Your task to perform on an android device: toggle notification dots Image 0: 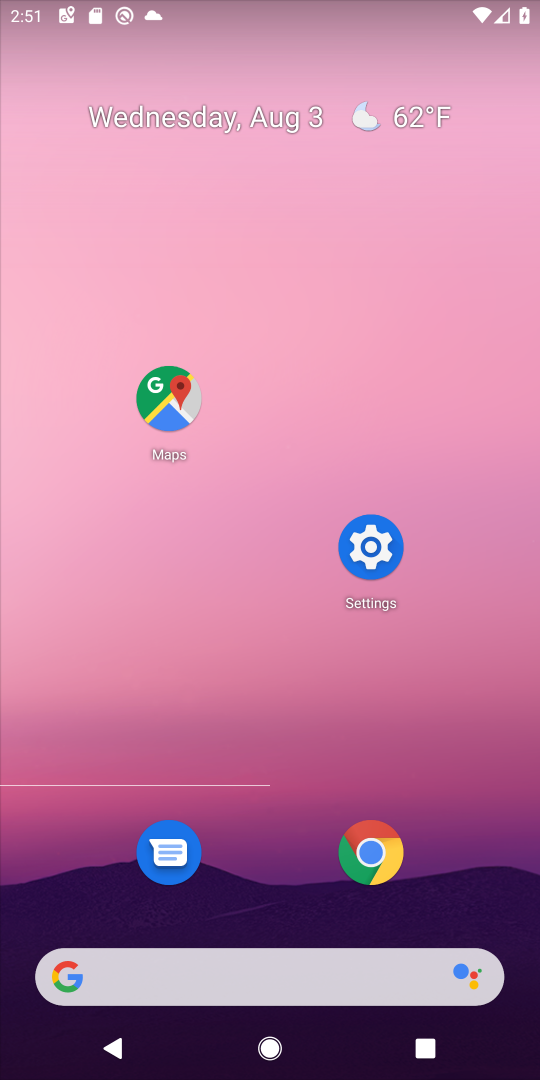
Step 0: press home button
Your task to perform on an android device: toggle notification dots Image 1: 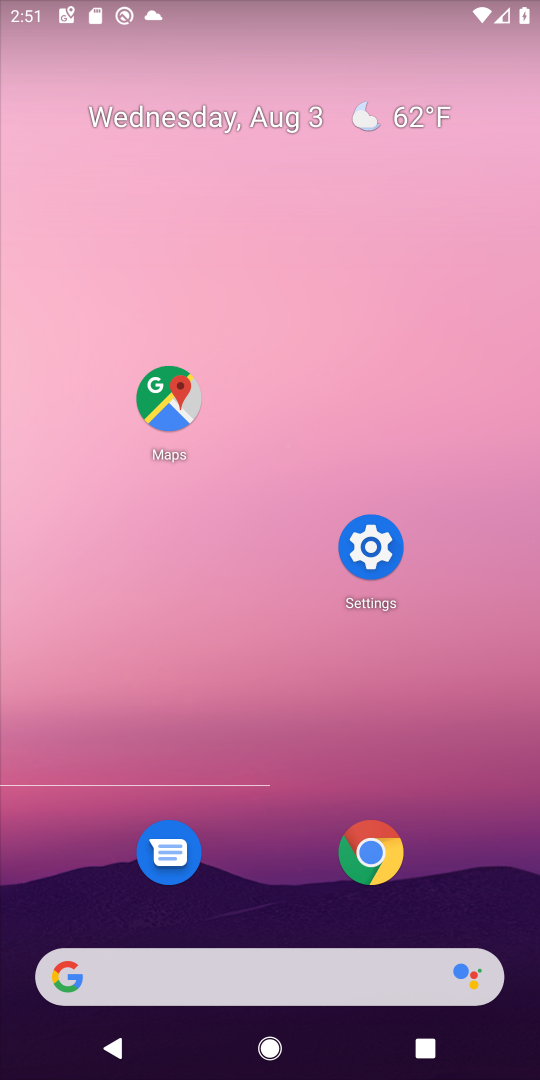
Step 1: click (367, 539)
Your task to perform on an android device: toggle notification dots Image 2: 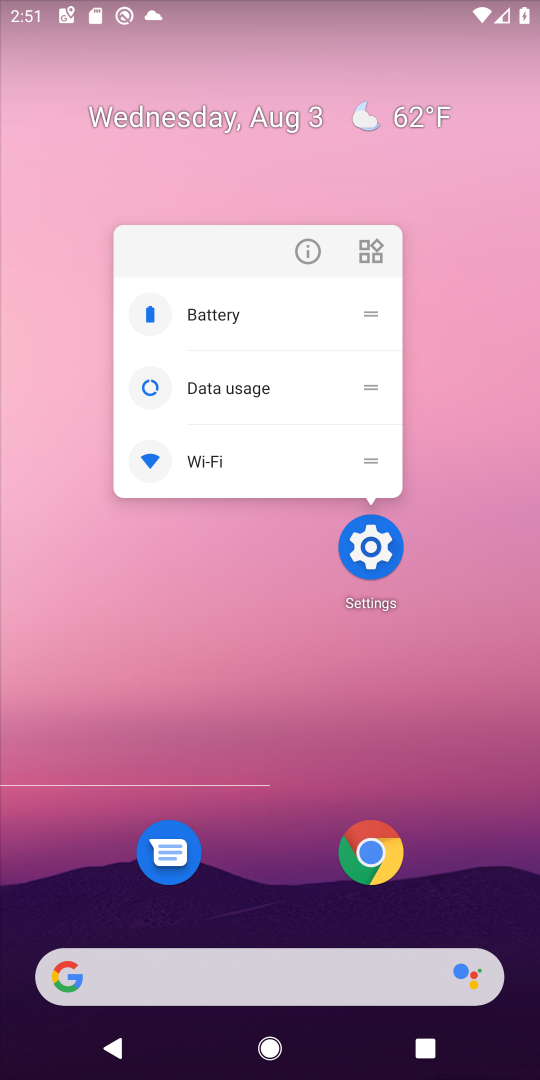
Step 2: click (365, 539)
Your task to perform on an android device: toggle notification dots Image 3: 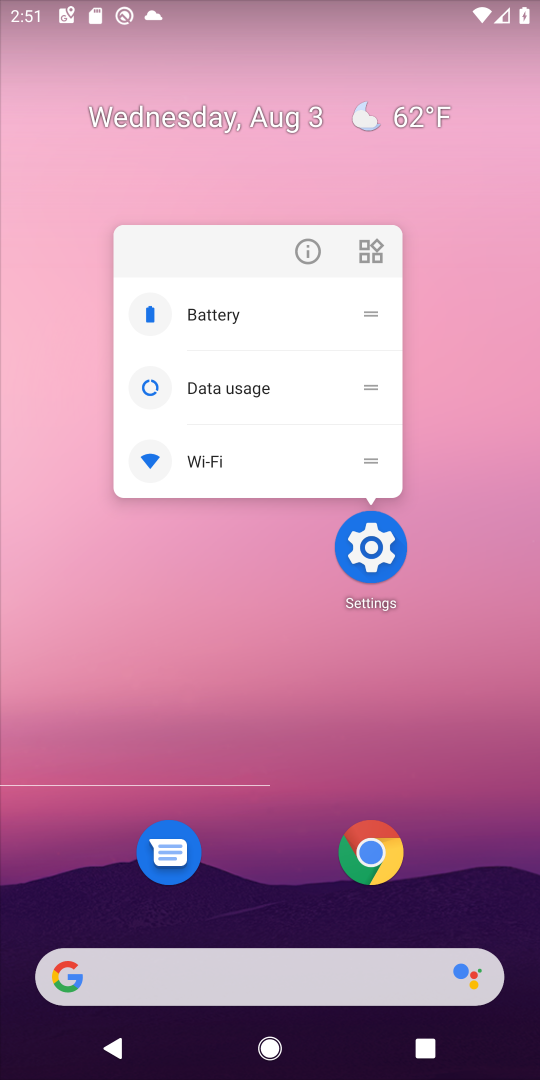
Step 3: click (365, 542)
Your task to perform on an android device: toggle notification dots Image 4: 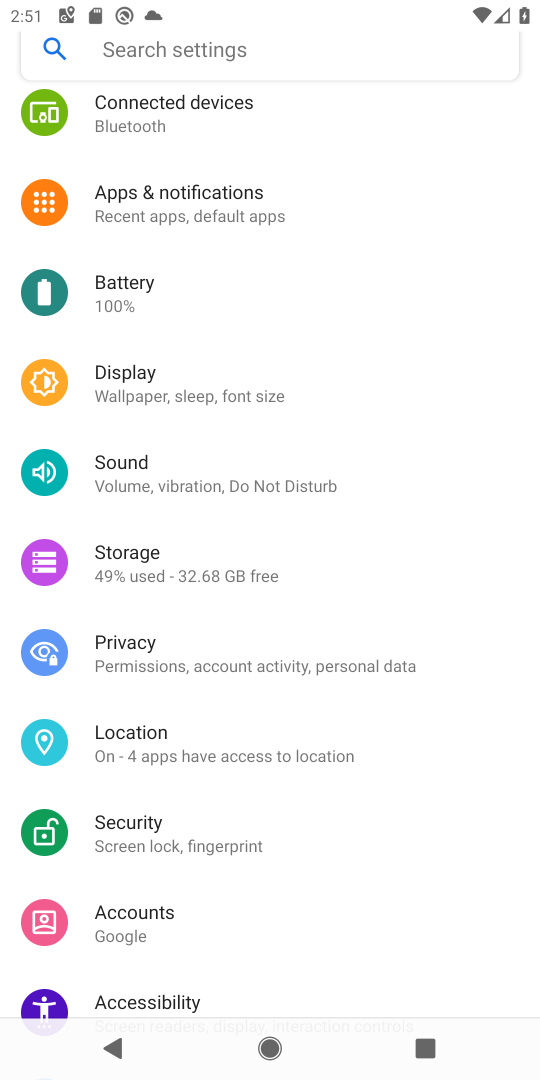
Step 4: click (255, 200)
Your task to perform on an android device: toggle notification dots Image 5: 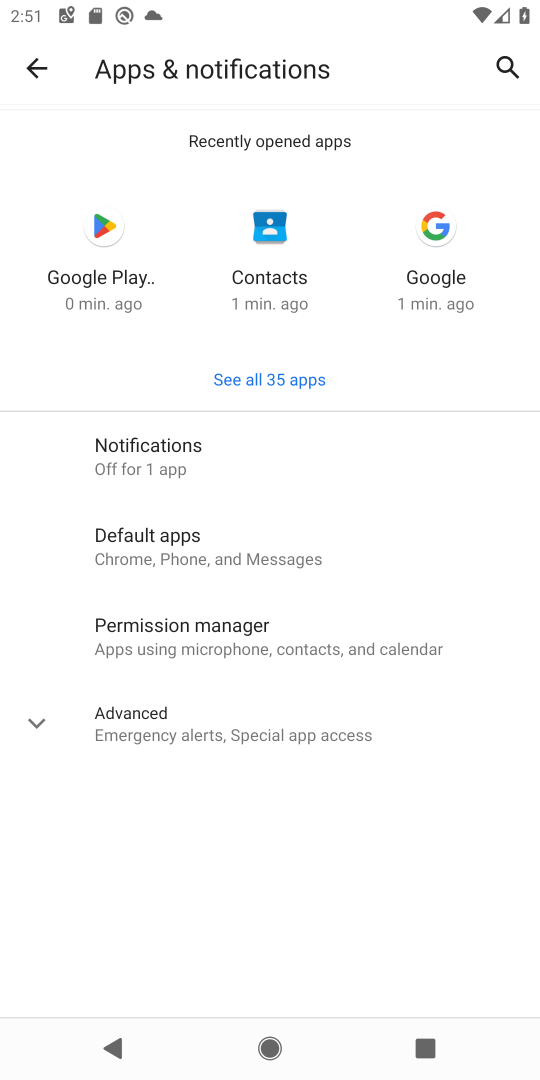
Step 5: click (159, 454)
Your task to perform on an android device: toggle notification dots Image 6: 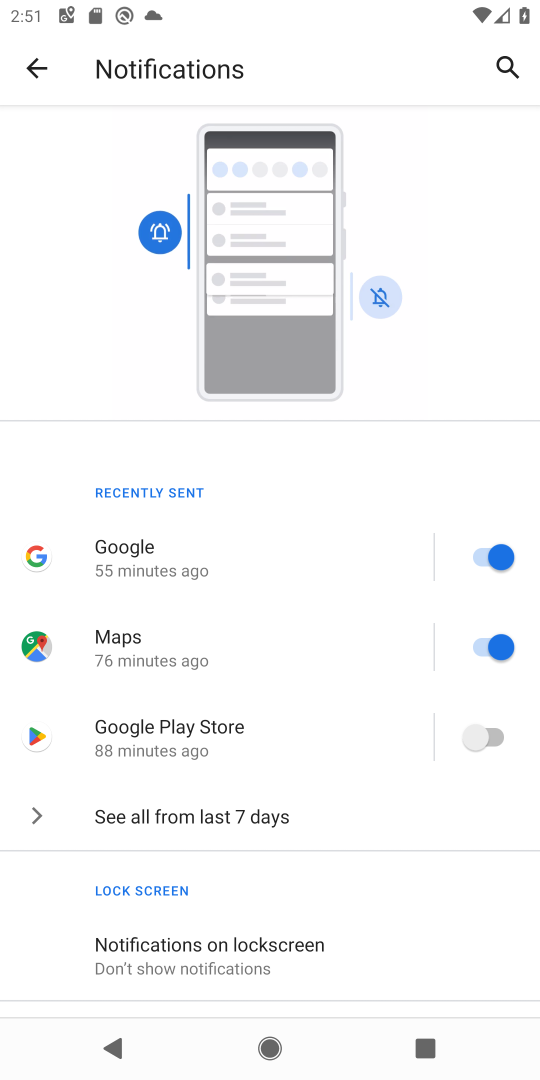
Step 6: drag from (322, 890) to (487, 282)
Your task to perform on an android device: toggle notification dots Image 7: 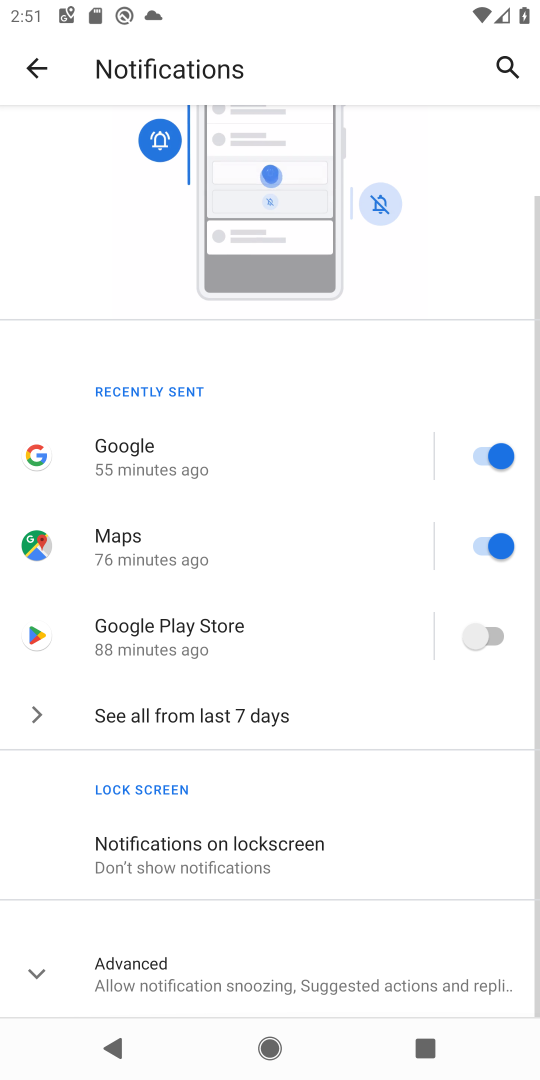
Step 7: click (172, 967)
Your task to perform on an android device: toggle notification dots Image 8: 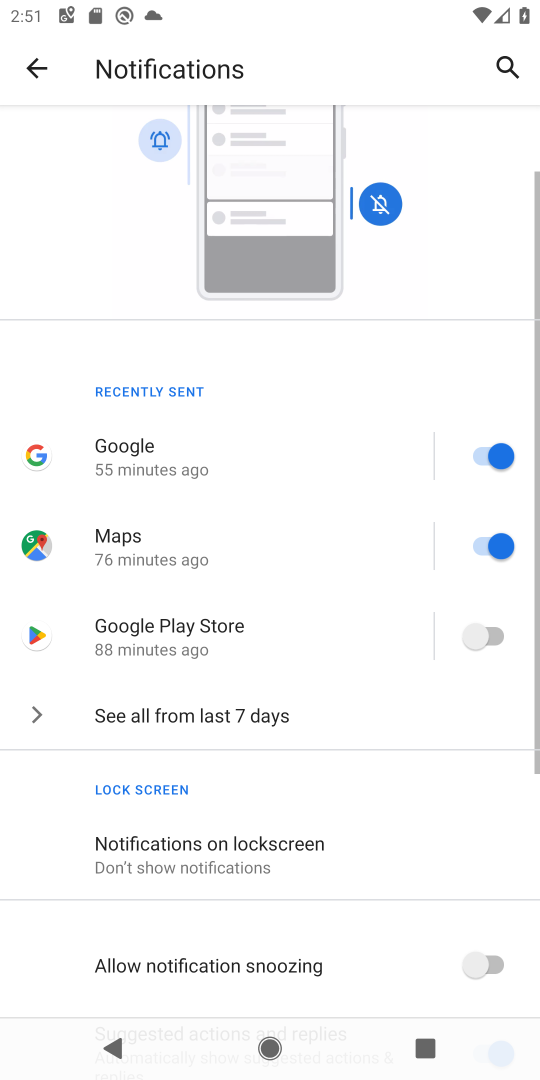
Step 8: drag from (327, 941) to (462, 381)
Your task to perform on an android device: toggle notification dots Image 9: 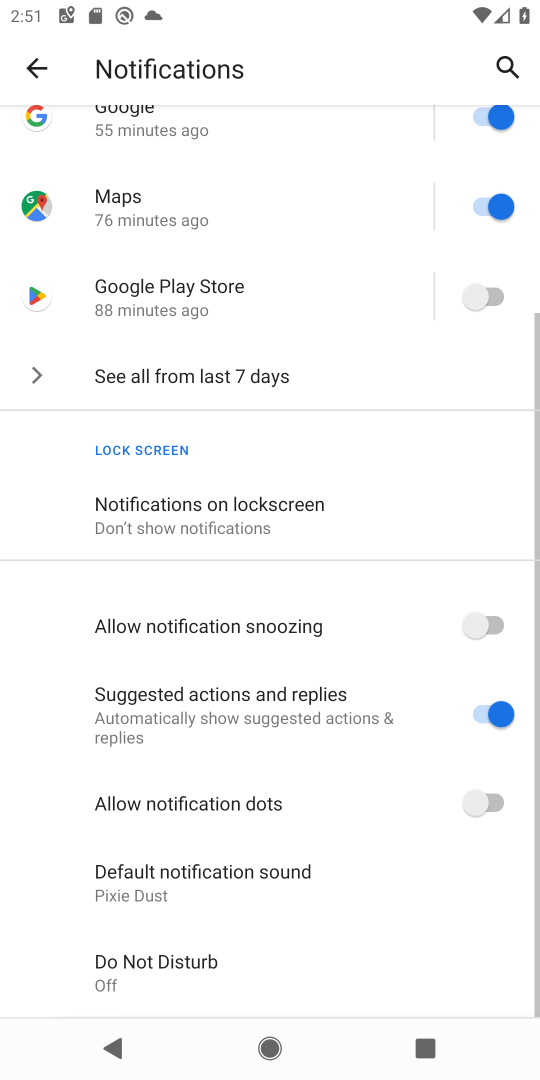
Step 9: click (487, 797)
Your task to perform on an android device: toggle notification dots Image 10: 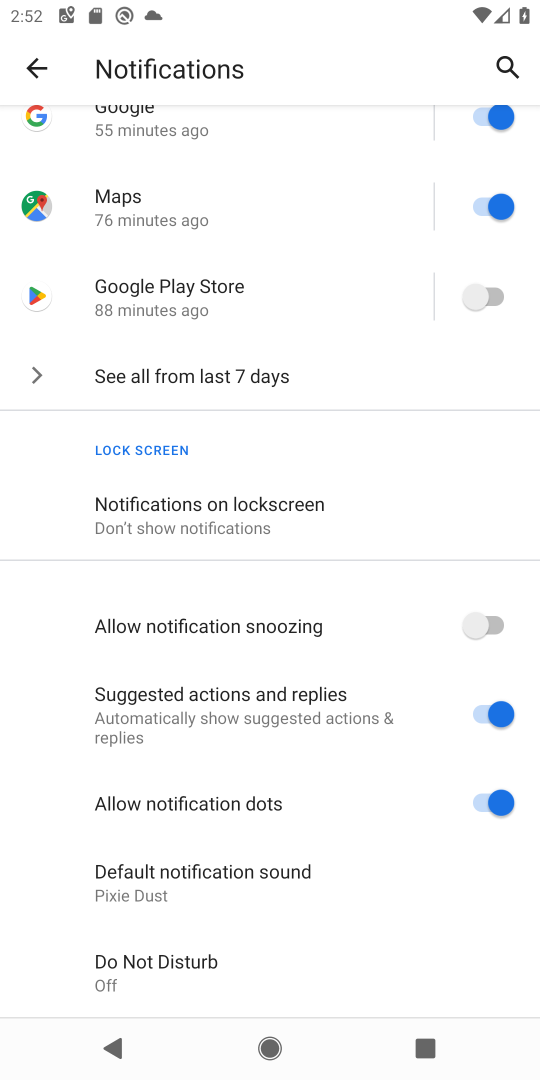
Step 10: task complete